Your task to perform on an android device: Go to battery settings Image 0: 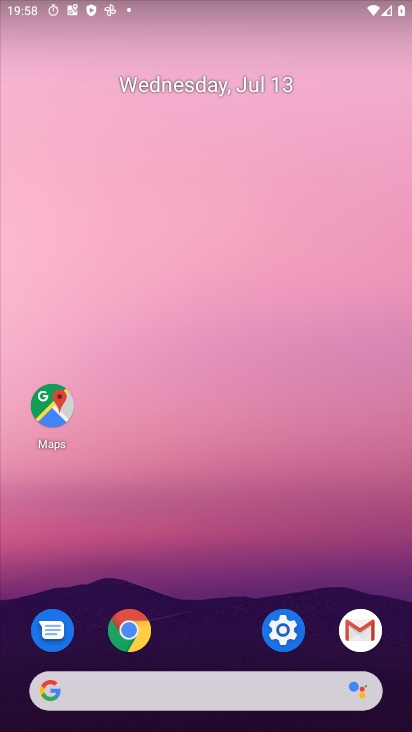
Step 0: click (281, 619)
Your task to perform on an android device: Go to battery settings Image 1: 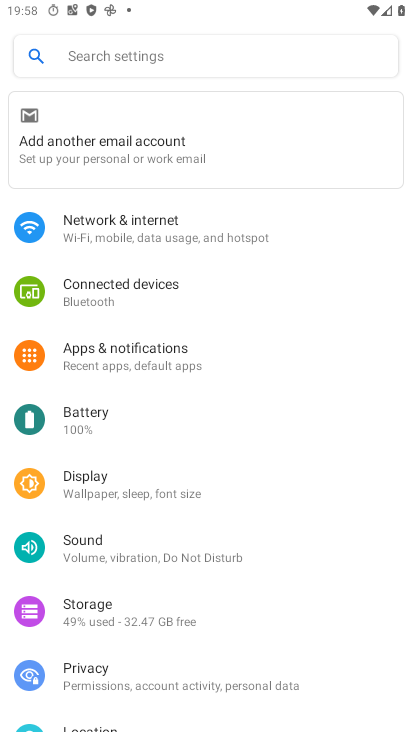
Step 1: click (89, 423)
Your task to perform on an android device: Go to battery settings Image 2: 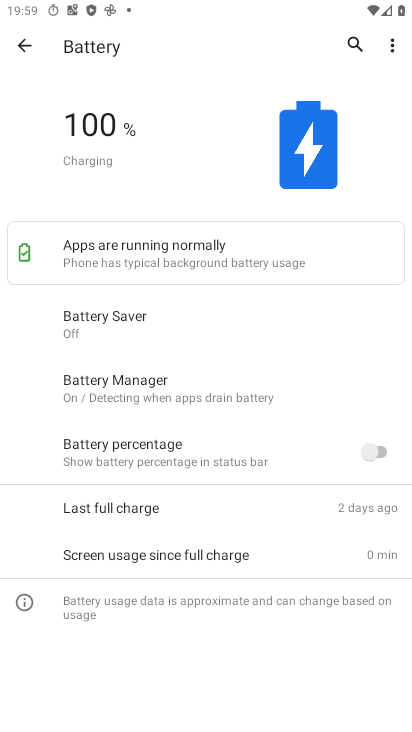
Step 2: task complete